Your task to perform on an android device: clear history in the chrome app Image 0: 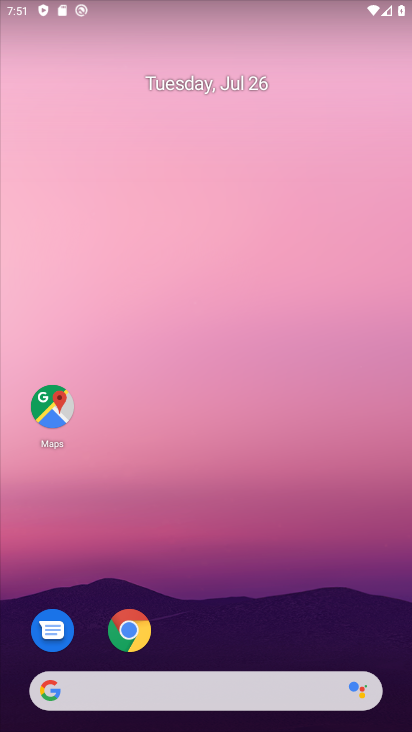
Step 0: click (130, 630)
Your task to perform on an android device: clear history in the chrome app Image 1: 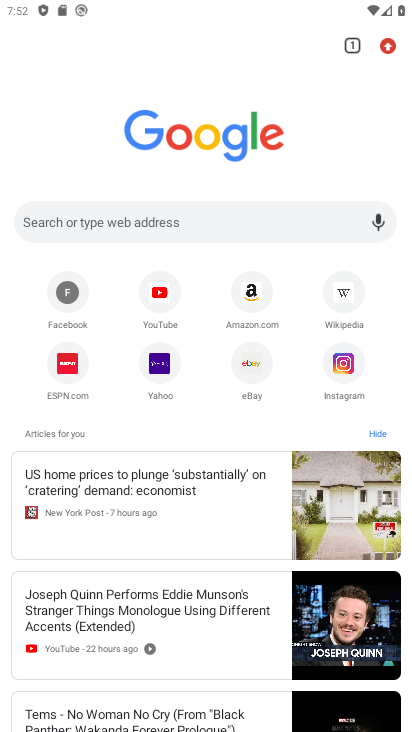
Step 1: click (391, 47)
Your task to perform on an android device: clear history in the chrome app Image 2: 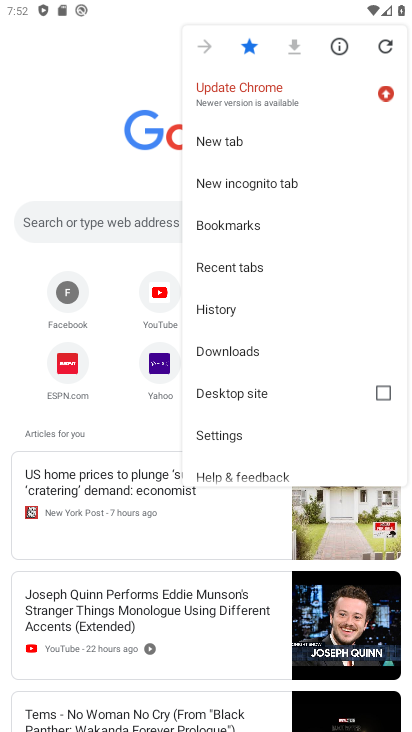
Step 2: click (221, 310)
Your task to perform on an android device: clear history in the chrome app Image 3: 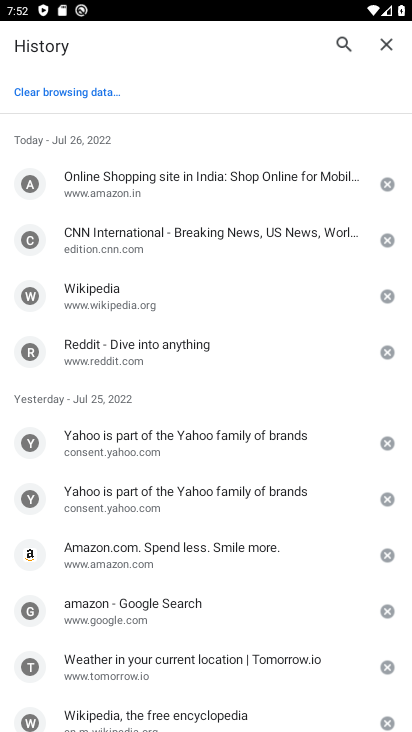
Step 3: click (87, 91)
Your task to perform on an android device: clear history in the chrome app Image 4: 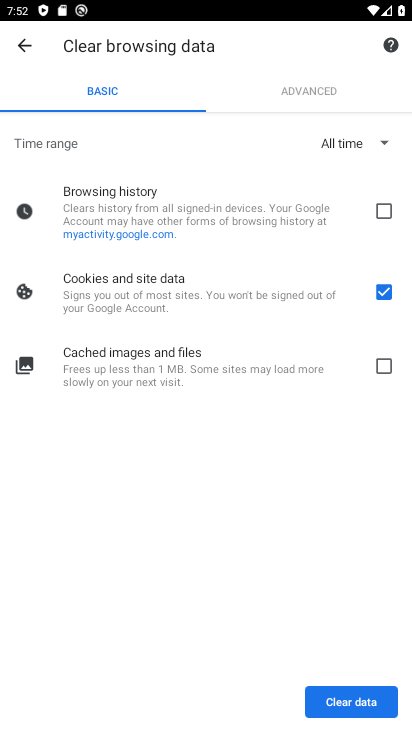
Step 4: click (380, 207)
Your task to perform on an android device: clear history in the chrome app Image 5: 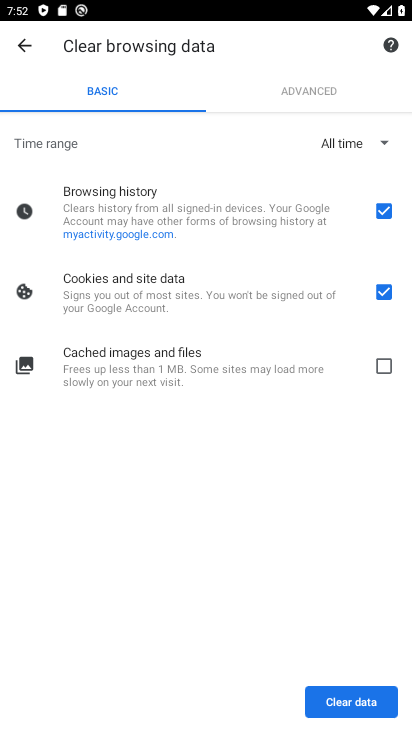
Step 5: click (386, 361)
Your task to perform on an android device: clear history in the chrome app Image 6: 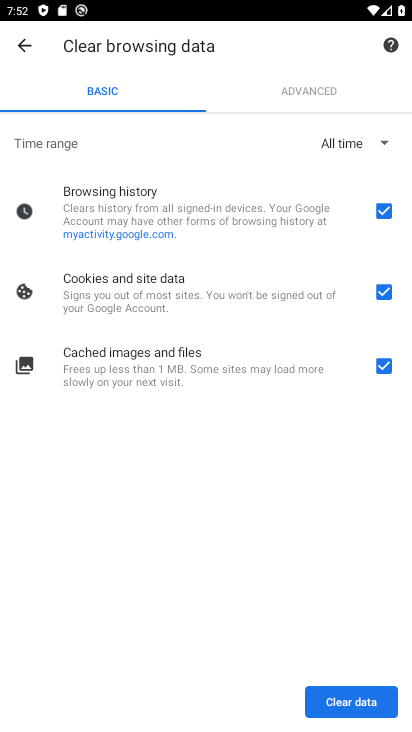
Step 6: click (352, 704)
Your task to perform on an android device: clear history in the chrome app Image 7: 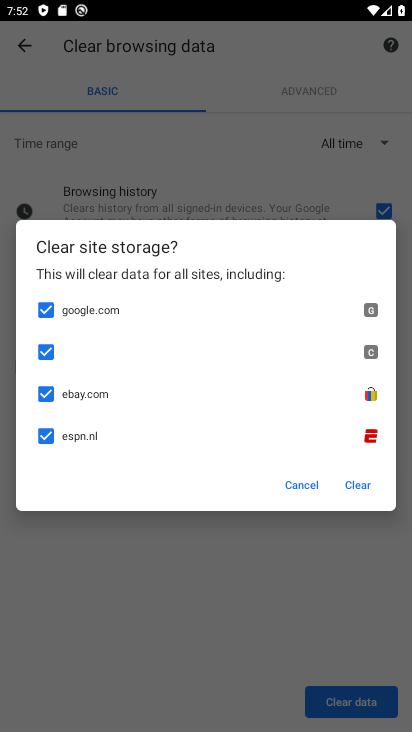
Step 7: click (366, 477)
Your task to perform on an android device: clear history in the chrome app Image 8: 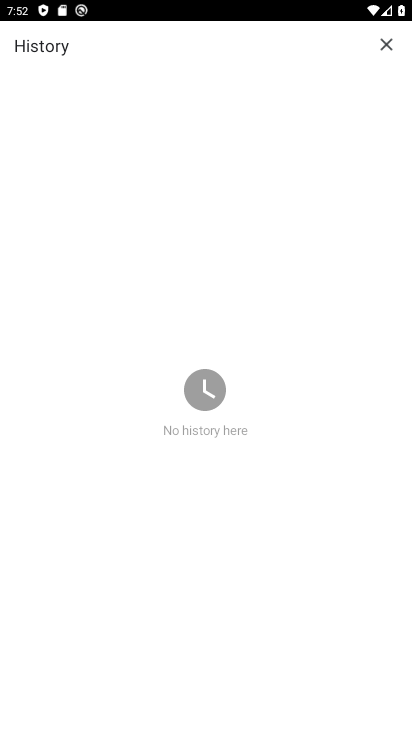
Step 8: task complete